Your task to perform on an android device: Go to wifi settings Image 0: 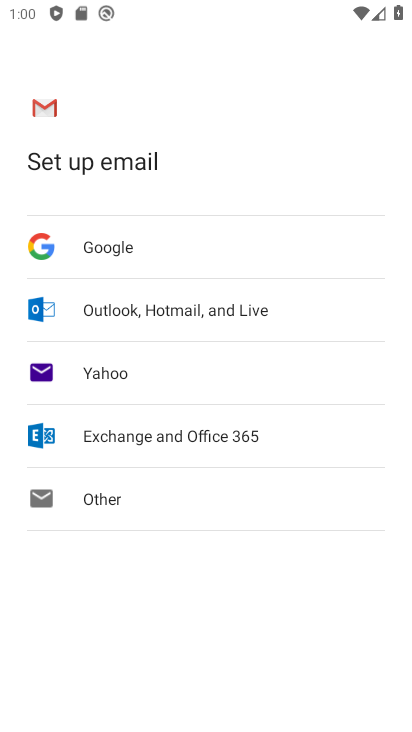
Step 0: click (139, 605)
Your task to perform on an android device: Go to wifi settings Image 1: 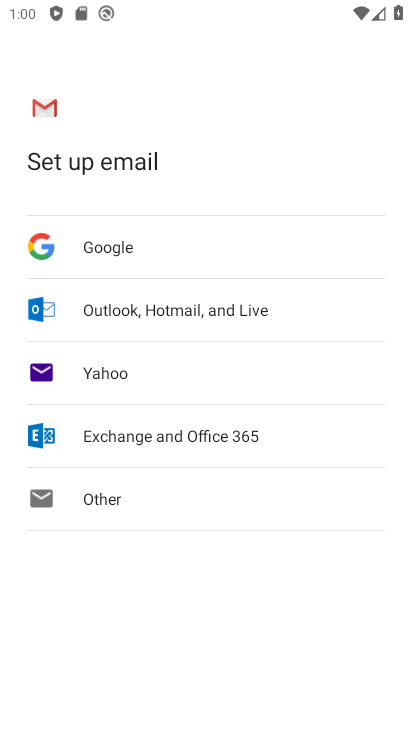
Step 1: press home button
Your task to perform on an android device: Go to wifi settings Image 2: 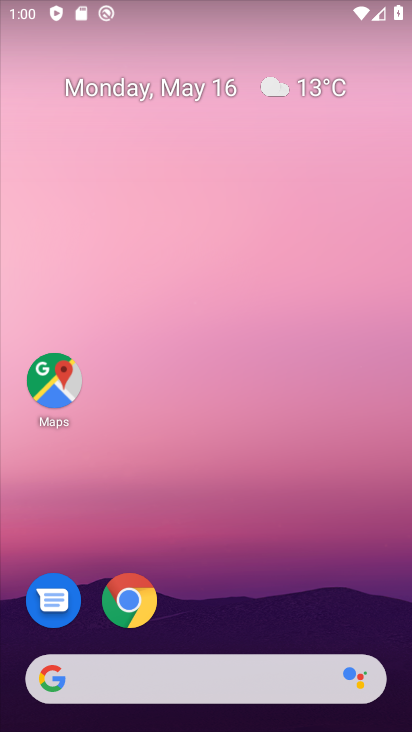
Step 2: drag from (102, 243) to (55, 57)
Your task to perform on an android device: Go to wifi settings Image 3: 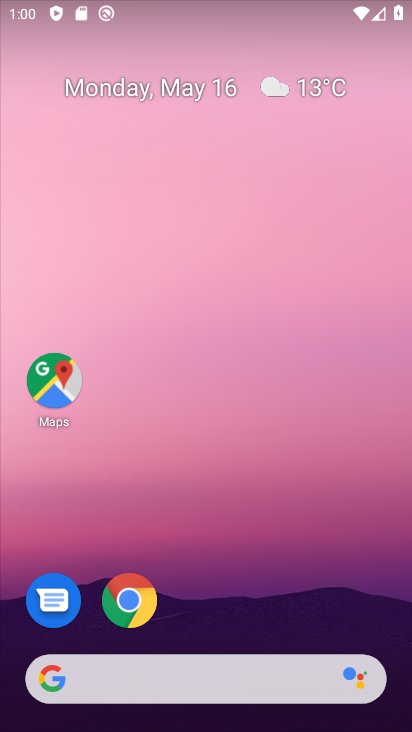
Step 3: drag from (252, 527) to (252, 37)
Your task to perform on an android device: Go to wifi settings Image 4: 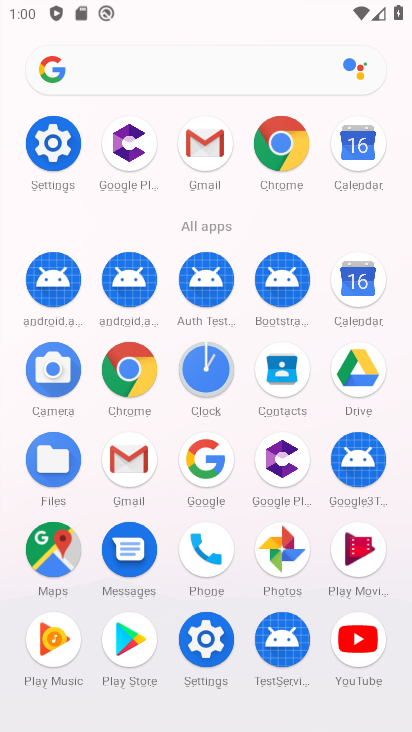
Step 4: click (211, 646)
Your task to perform on an android device: Go to wifi settings Image 5: 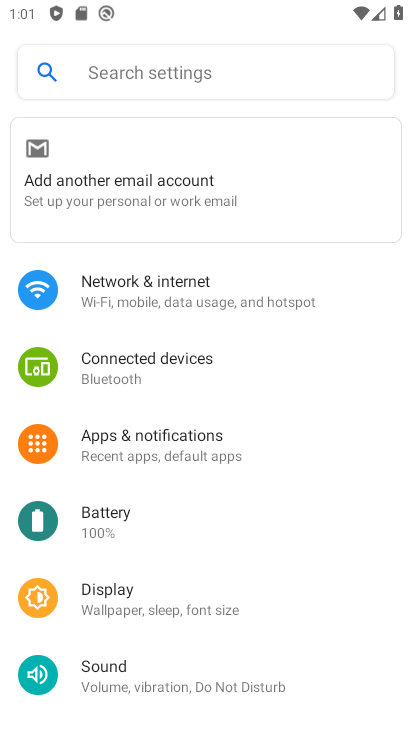
Step 5: click (113, 291)
Your task to perform on an android device: Go to wifi settings Image 6: 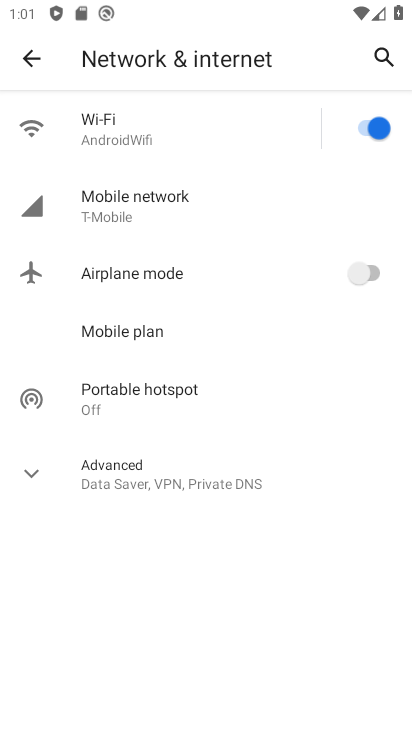
Step 6: click (89, 130)
Your task to perform on an android device: Go to wifi settings Image 7: 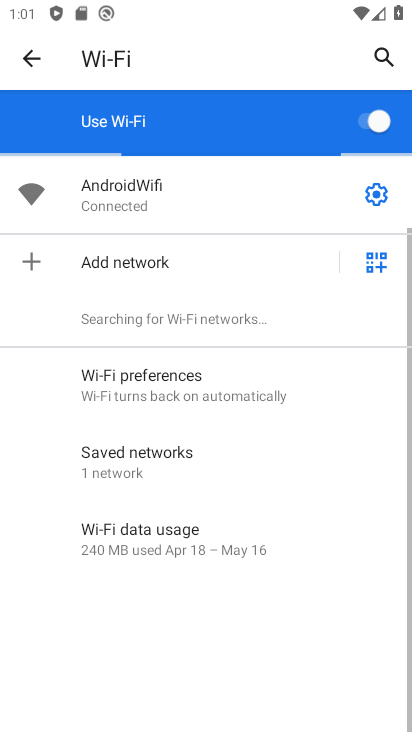
Step 7: task complete